Your task to perform on an android device: Open the calendar and show me this week's events? Image 0: 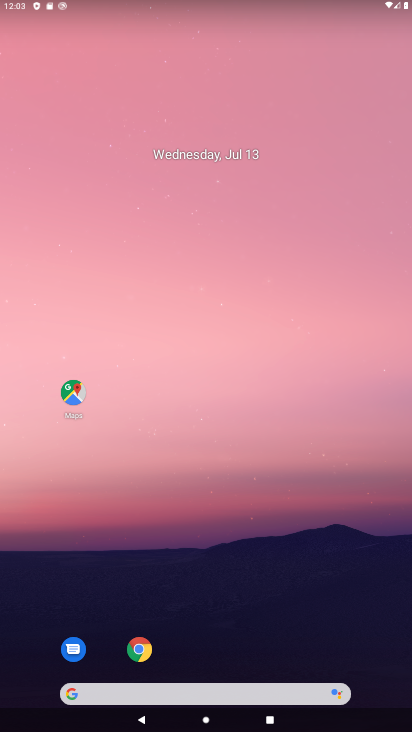
Step 0: drag from (288, 602) to (288, 40)
Your task to perform on an android device: Open the calendar and show me this week's events? Image 1: 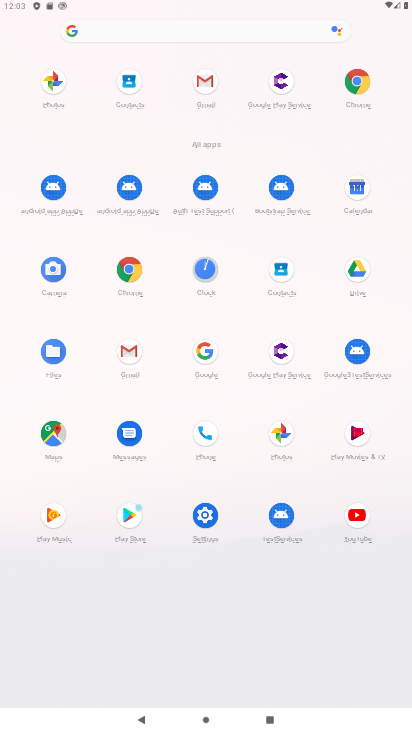
Step 1: click (363, 173)
Your task to perform on an android device: Open the calendar and show me this week's events? Image 2: 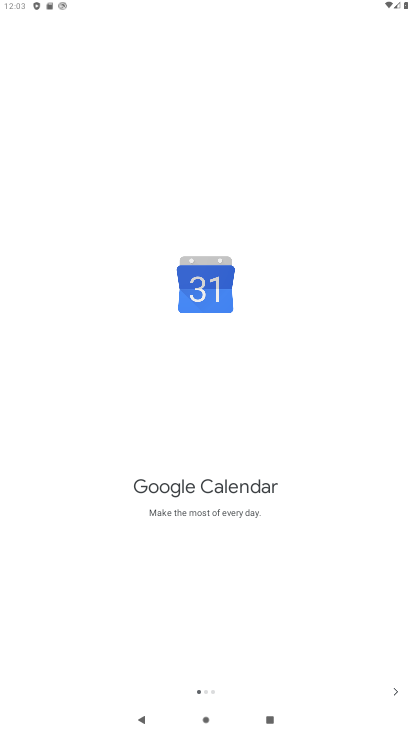
Step 2: click (394, 692)
Your task to perform on an android device: Open the calendar and show me this week's events? Image 3: 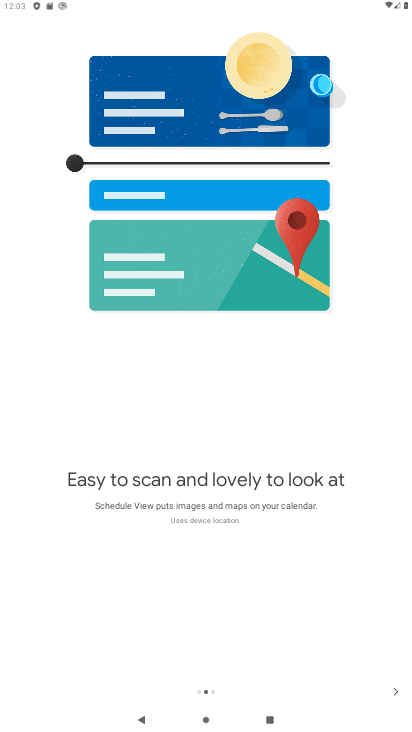
Step 3: click (394, 693)
Your task to perform on an android device: Open the calendar and show me this week's events? Image 4: 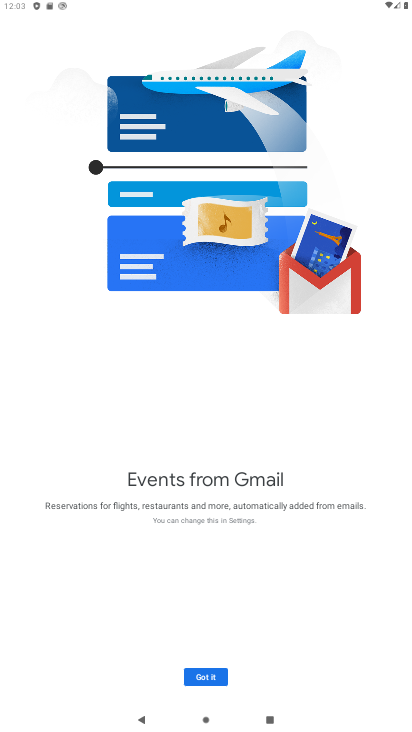
Step 4: click (213, 670)
Your task to perform on an android device: Open the calendar and show me this week's events? Image 5: 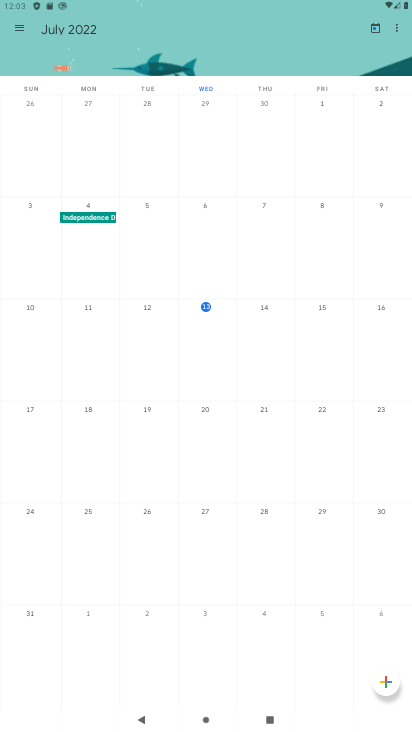
Step 5: click (24, 29)
Your task to perform on an android device: Open the calendar and show me this week's events? Image 6: 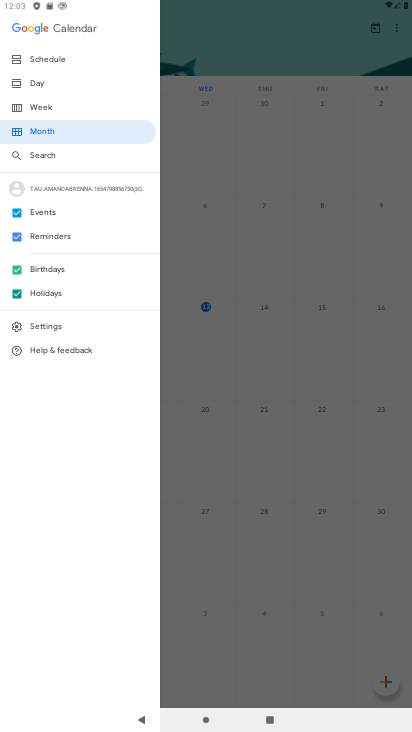
Step 6: click (57, 103)
Your task to perform on an android device: Open the calendar and show me this week's events? Image 7: 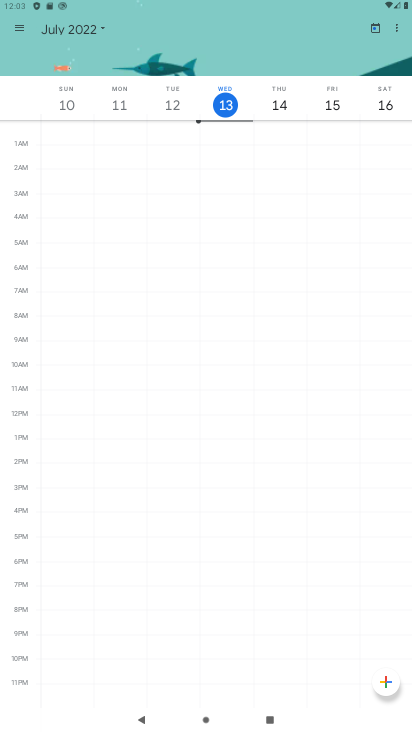
Step 7: task complete